Your task to perform on an android device: check the backup settings in the google photos Image 0: 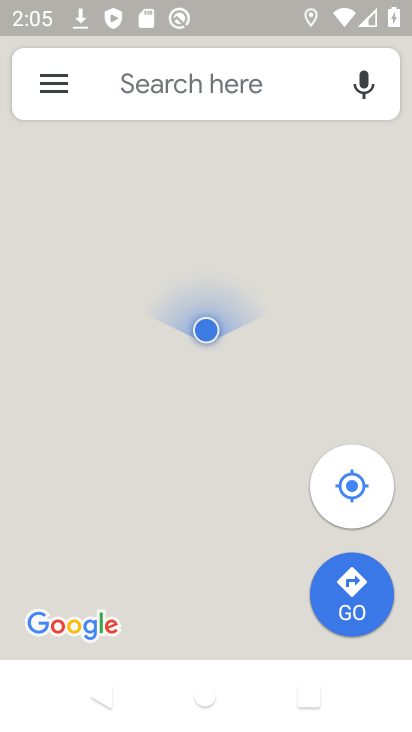
Step 0: press home button
Your task to perform on an android device: check the backup settings in the google photos Image 1: 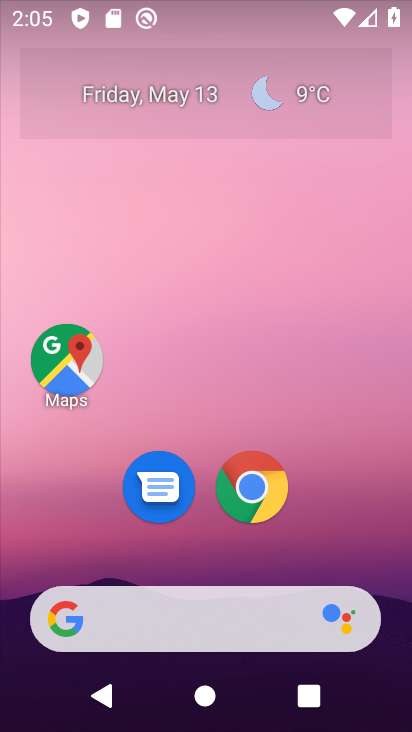
Step 1: drag from (224, 527) to (210, 27)
Your task to perform on an android device: check the backup settings in the google photos Image 2: 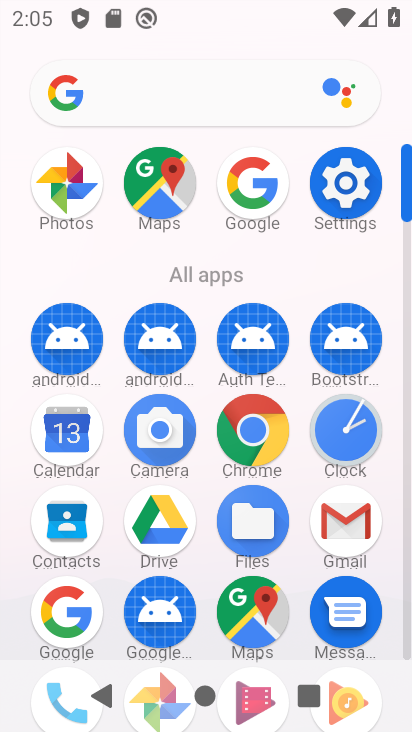
Step 2: click (66, 188)
Your task to perform on an android device: check the backup settings in the google photos Image 3: 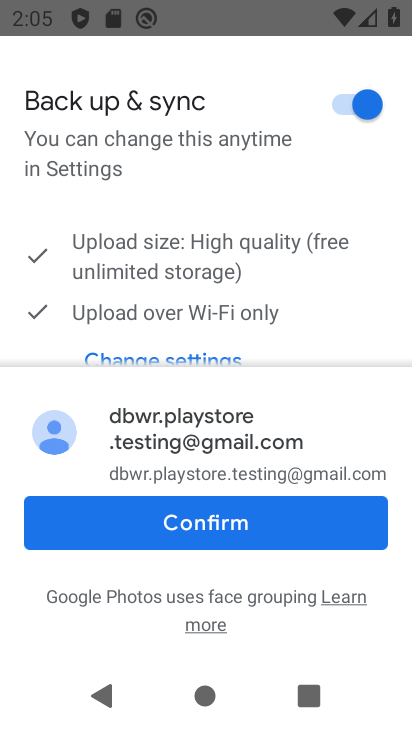
Step 3: click (245, 532)
Your task to perform on an android device: check the backup settings in the google photos Image 4: 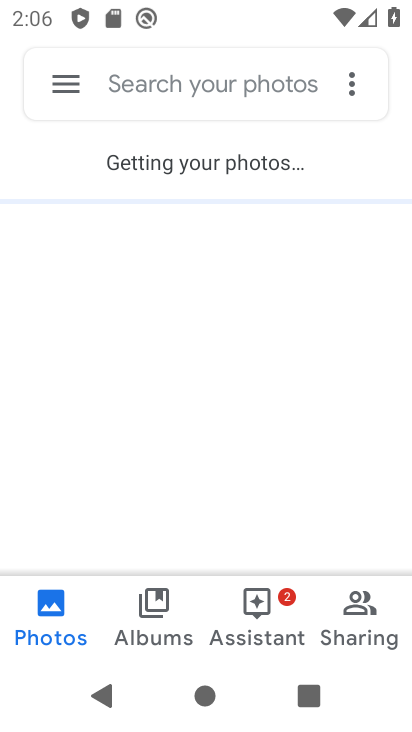
Step 4: click (70, 87)
Your task to perform on an android device: check the backup settings in the google photos Image 5: 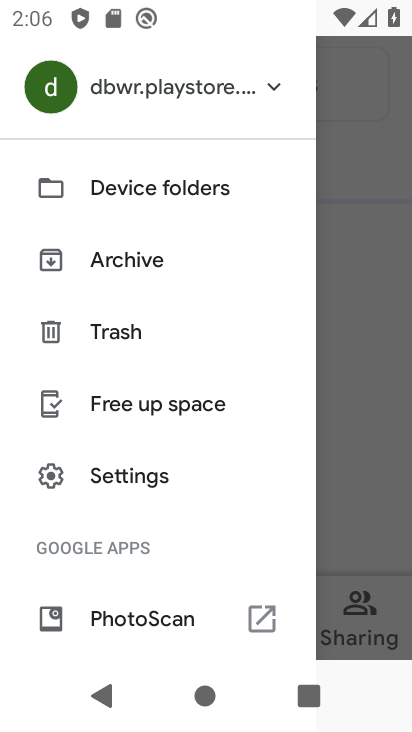
Step 5: click (164, 488)
Your task to perform on an android device: check the backup settings in the google photos Image 6: 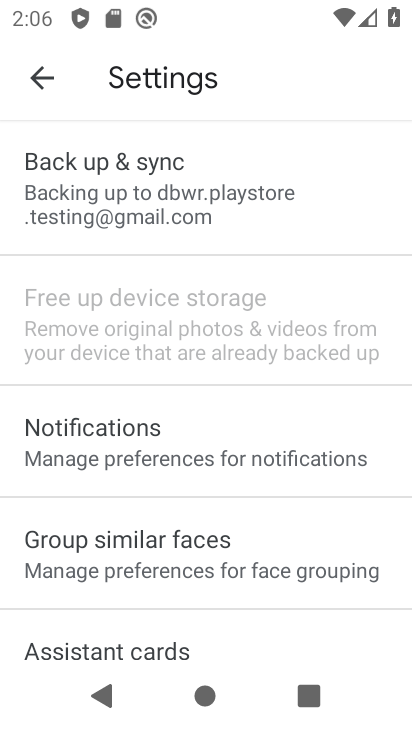
Step 6: click (188, 190)
Your task to perform on an android device: check the backup settings in the google photos Image 7: 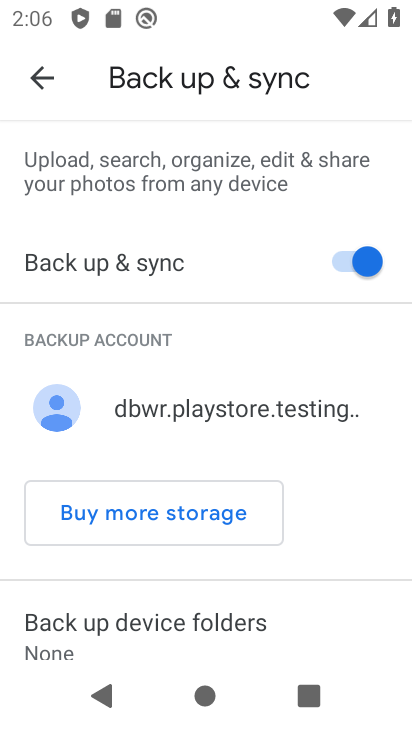
Step 7: task complete